Your task to perform on an android device: Is it going to rain today? Image 0: 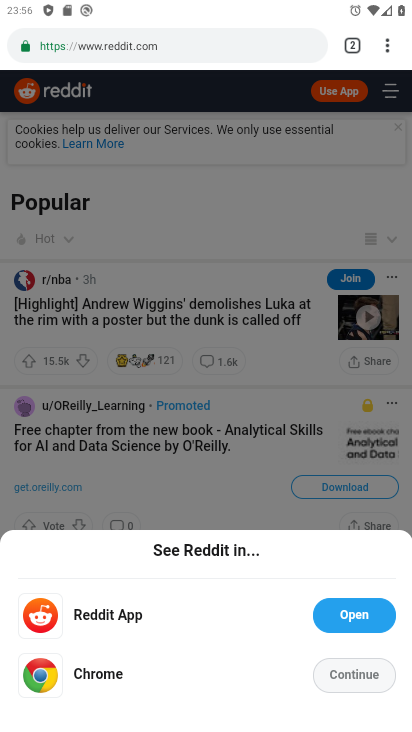
Step 0: press home button
Your task to perform on an android device: Is it going to rain today? Image 1: 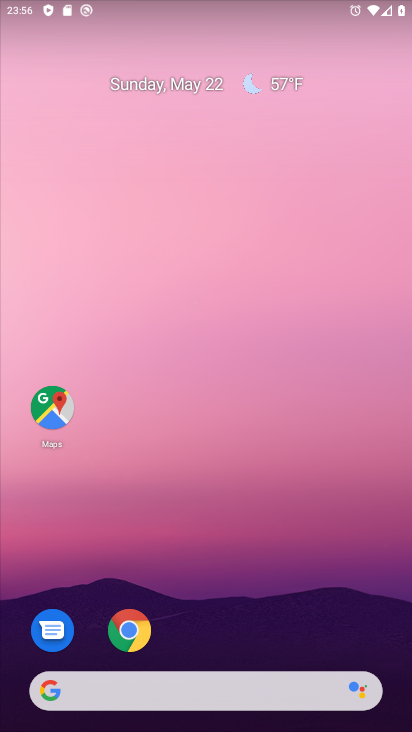
Step 1: click (291, 84)
Your task to perform on an android device: Is it going to rain today? Image 2: 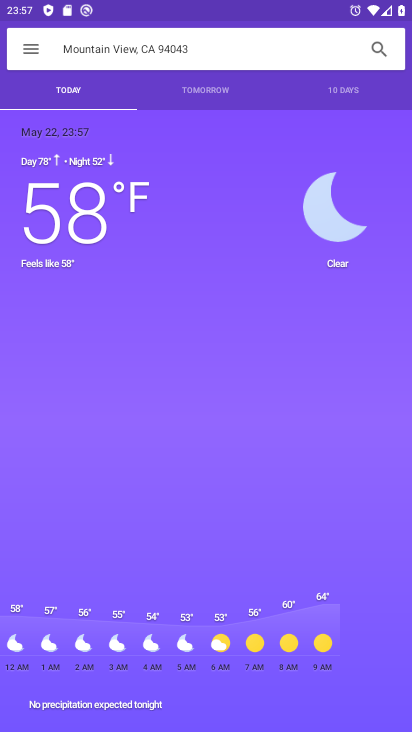
Step 2: press home button
Your task to perform on an android device: Is it going to rain today? Image 3: 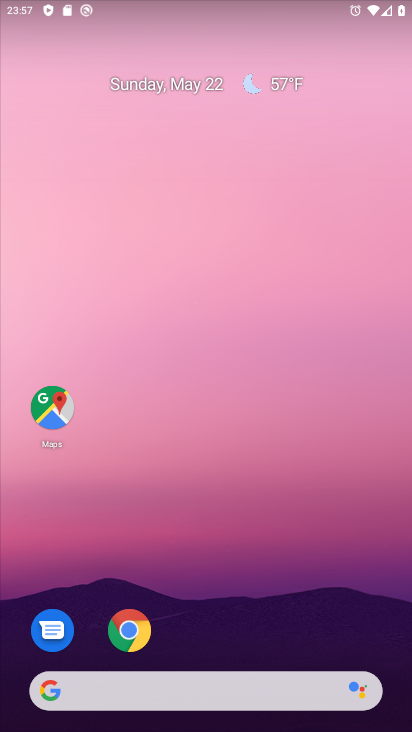
Step 3: click (279, 81)
Your task to perform on an android device: Is it going to rain today? Image 4: 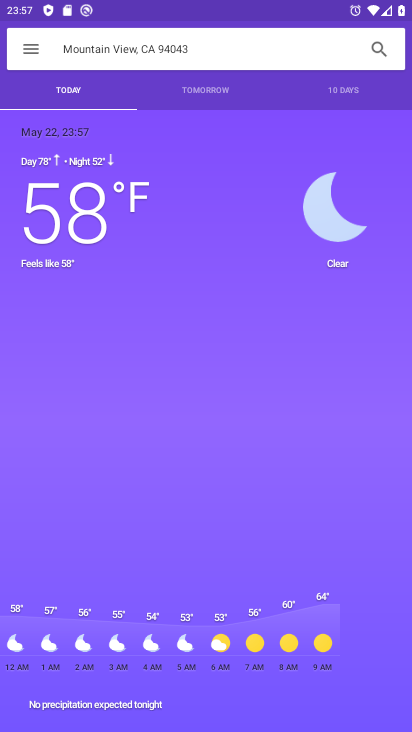
Step 4: task complete